Your task to perform on an android device: turn off notifications in google photos Image 0: 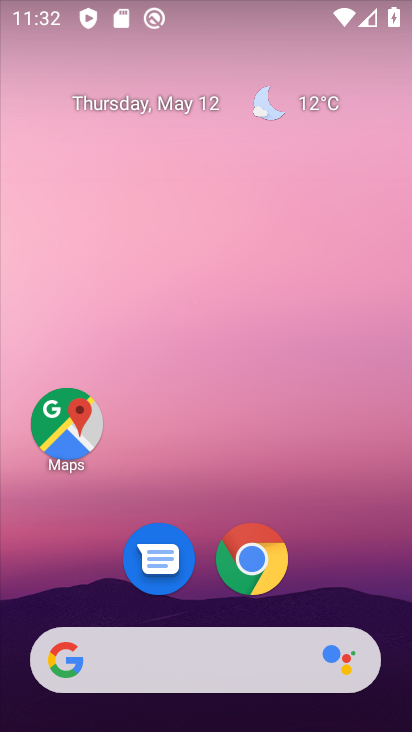
Step 0: drag from (87, 617) to (227, 153)
Your task to perform on an android device: turn off notifications in google photos Image 1: 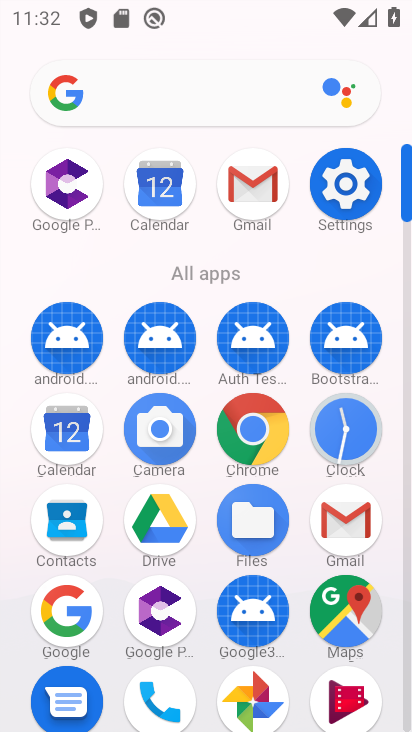
Step 1: drag from (204, 629) to (279, 398)
Your task to perform on an android device: turn off notifications in google photos Image 2: 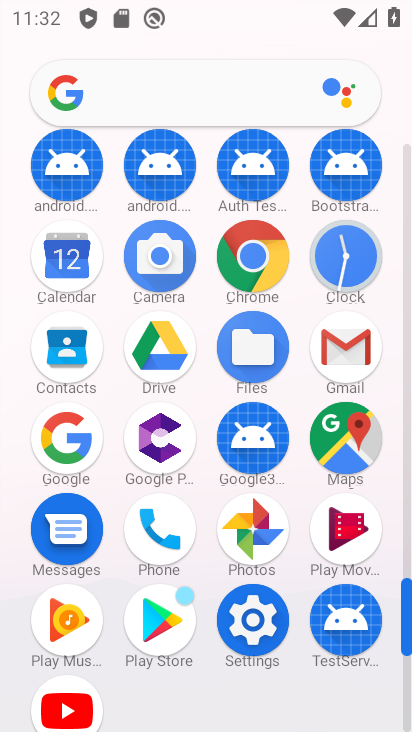
Step 2: click (258, 545)
Your task to perform on an android device: turn off notifications in google photos Image 3: 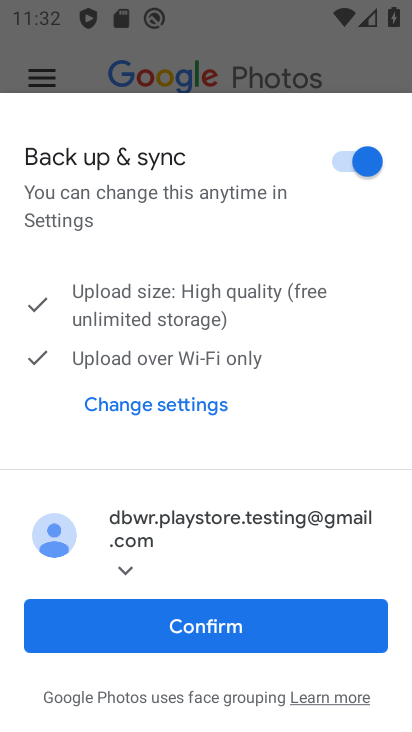
Step 3: click (193, 646)
Your task to perform on an android device: turn off notifications in google photos Image 4: 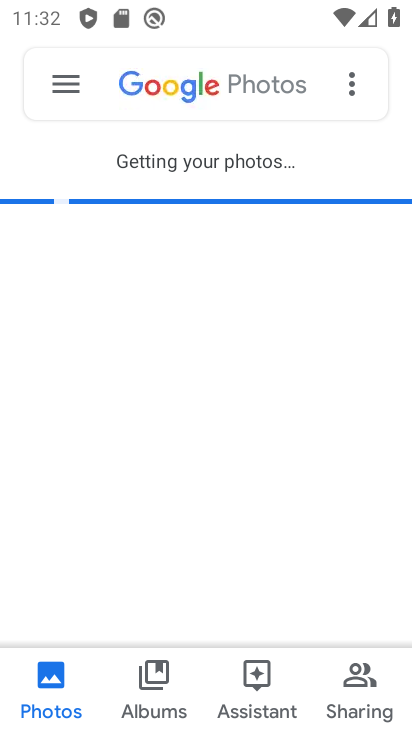
Step 4: click (68, 83)
Your task to perform on an android device: turn off notifications in google photos Image 5: 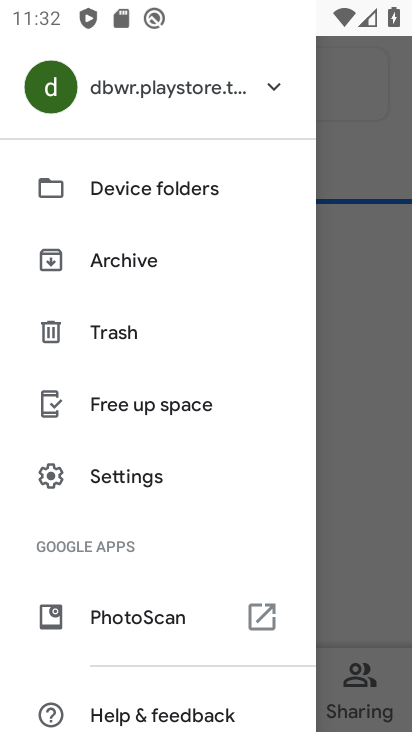
Step 5: drag from (163, 596) to (230, 330)
Your task to perform on an android device: turn off notifications in google photos Image 6: 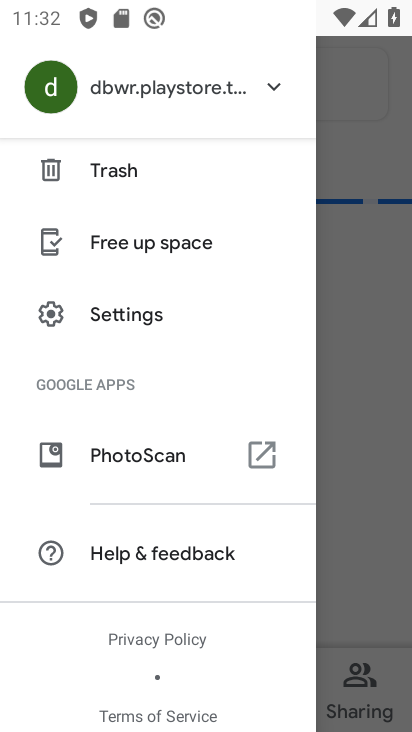
Step 6: click (139, 333)
Your task to perform on an android device: turn off notifications in google photos Image 7: 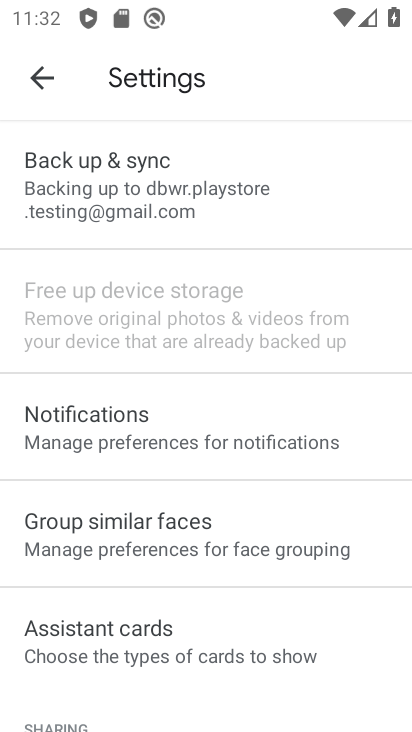
Step 7: click (173, 412)
Your task to perform on an android device: turn off notifications in google photos Image 8: 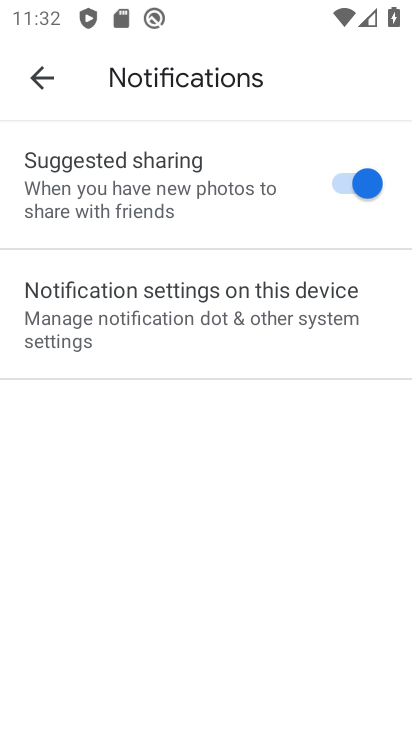
Step 8: click (211, 298)
Your task to perform on an android device: turn off notifications in google photos Image 9: 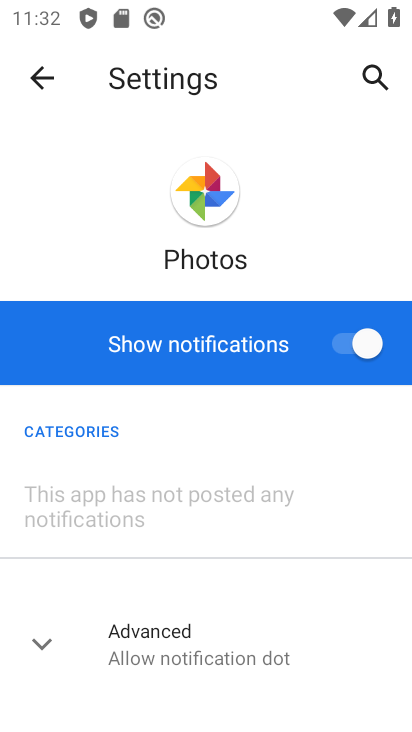
Step 9: click (335, 337)
Your task to perform on an android device: turn off notifications in google photos Image 10: 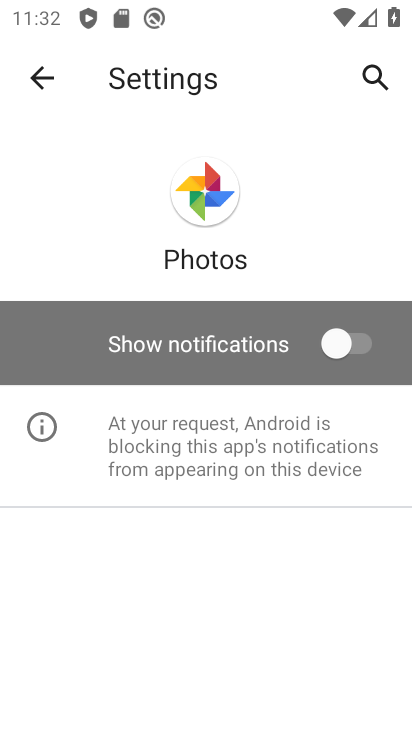
Step 10: task complete